Your task to perform on an android device: Go to Android settings Image 0: 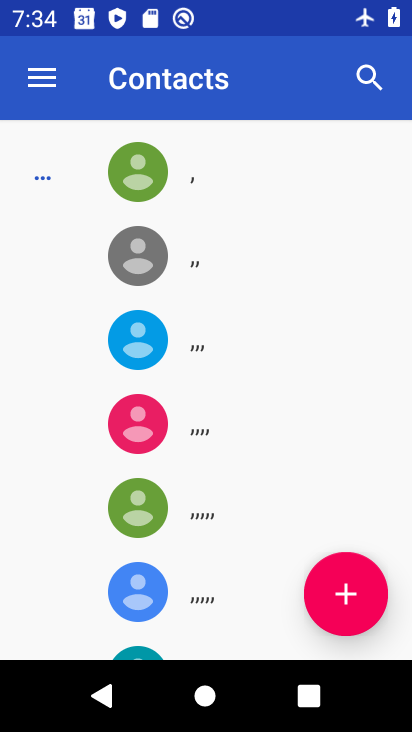
Step 0: press home button
Your task to perform on an android device: Go to Android settings Image 1: 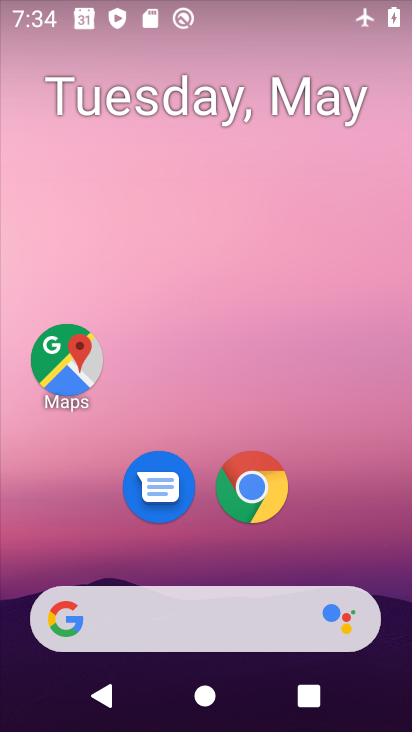
Step 1: drag from (378, 542) to (382, 233)
Your task to perform on an android device: Go to Android settings Image 2: 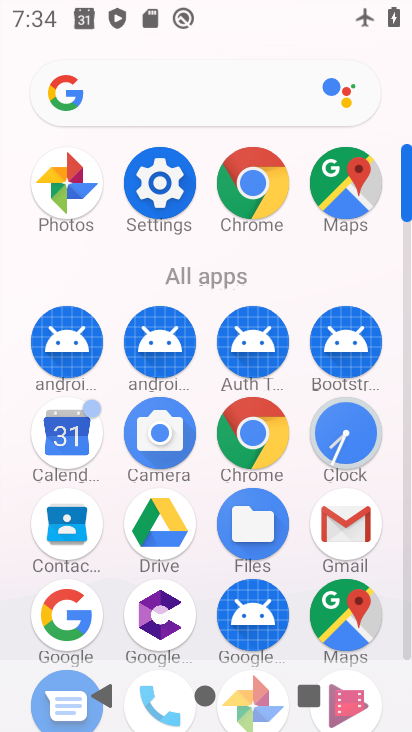
Step 2: click (179, 209)
Your task to perform on an android device: Go to Android settings Image 3: 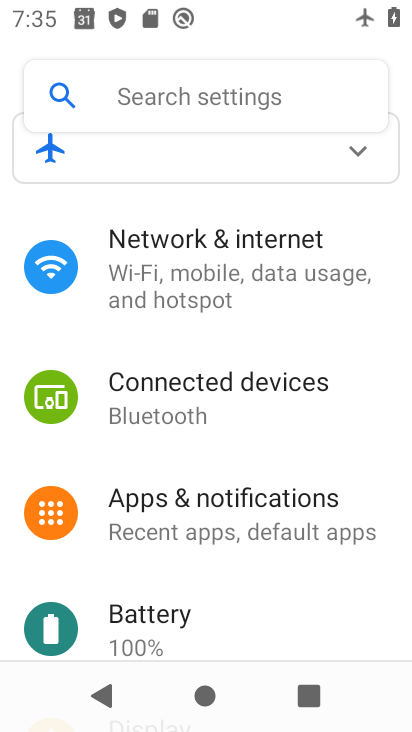
Step 3: drag from (342, 455) to (365, 319)
Your task to perform on an android device: Go to Android settings Image 4: 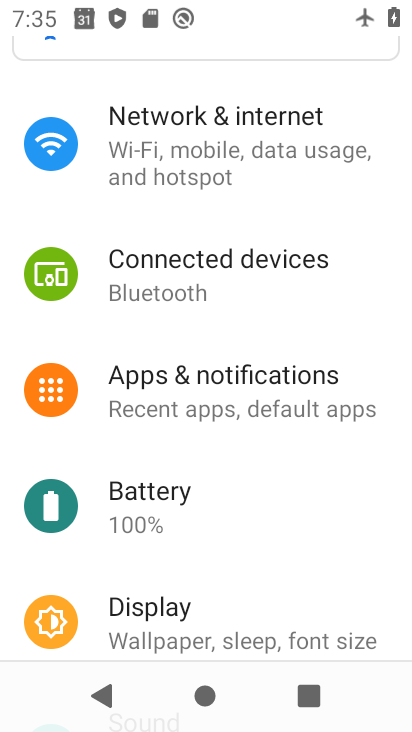
Step 4: drag from (359, 511) to (362, 374)
Your task to perform on an android device: Go to Android settings Image 5: 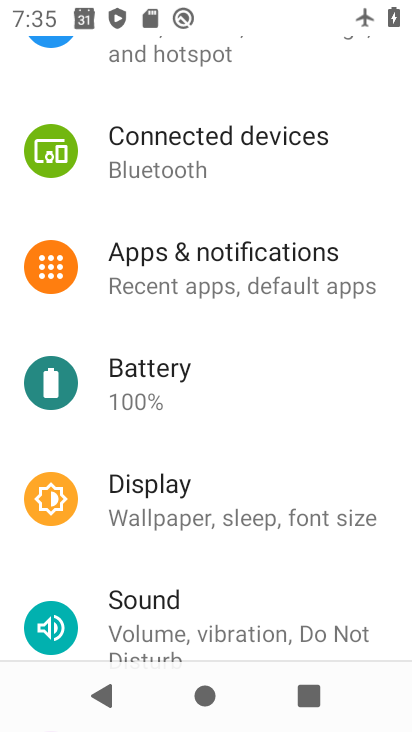
Step 5: drag from (368, 533) to (374, 453)
Your task to perform on an android device: Go to Android settings Image 6: 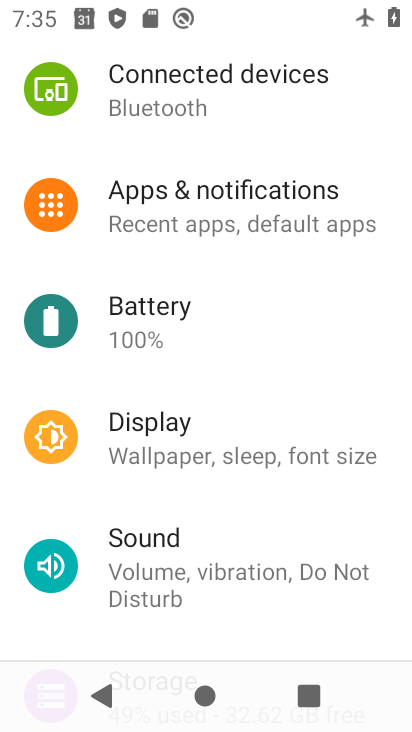
Step 6: drag from (365, 583) to (371, 469)
Your task to perform on an android device: Go to Android settings Image 7: 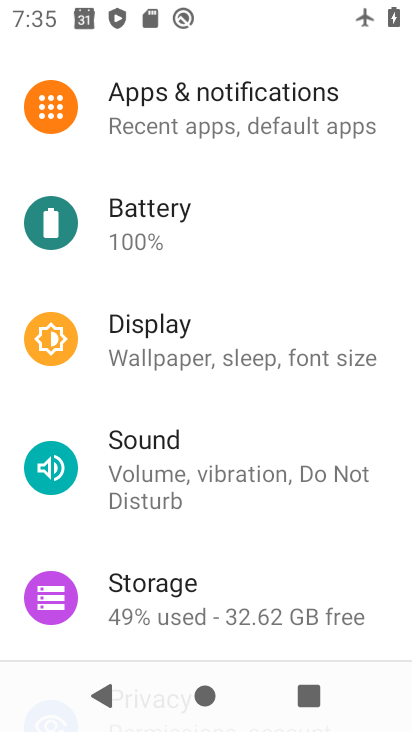
Step 7: drag from (366, 556) to (365, 420)
Your task to perform on an android device: Go to Android settings Image 8: 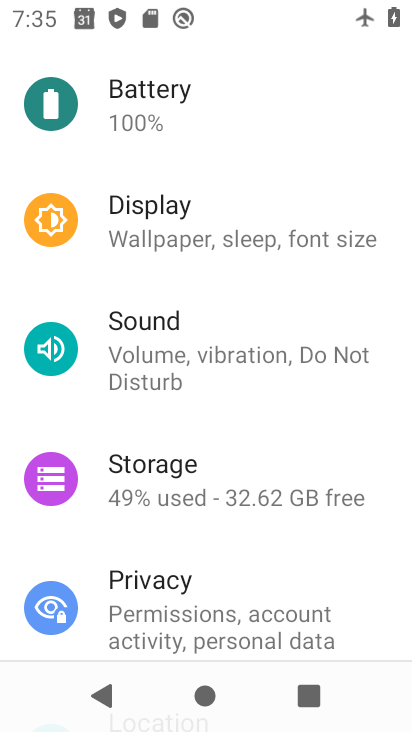
Step 8: drag from (363, 565) to (372, 455)
Your task to perform on an android device: Go to Android settings Image 9: 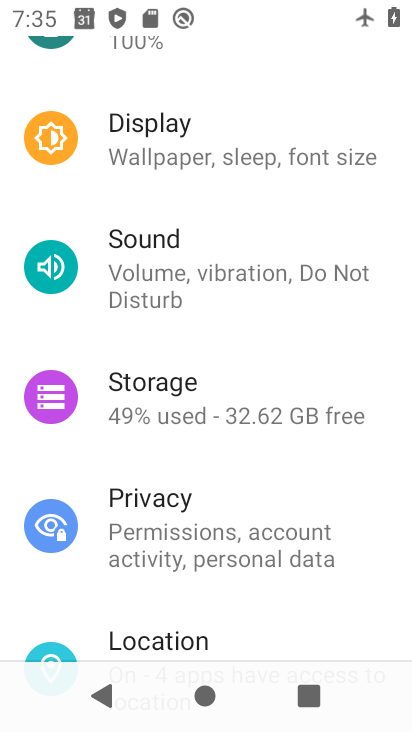
Step 9: drag from (371, 576) to (370, 427)
Your task to perform on an android device: Go to Android settings Image 10: 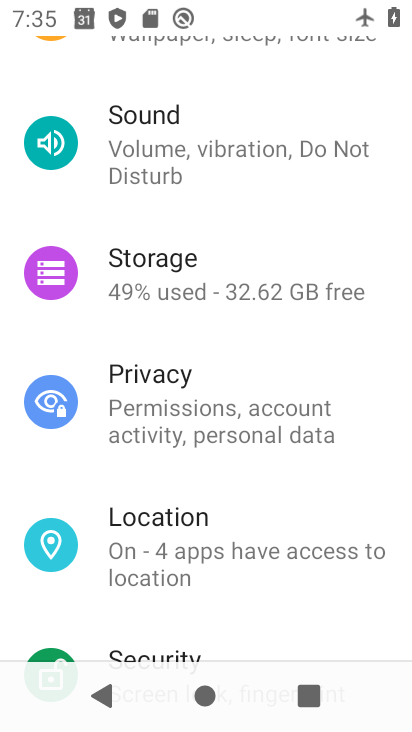
Step 10: drag from (352, 600) to (348, 465)
Your task to perform on an android device: Go to Android settings Image 11: 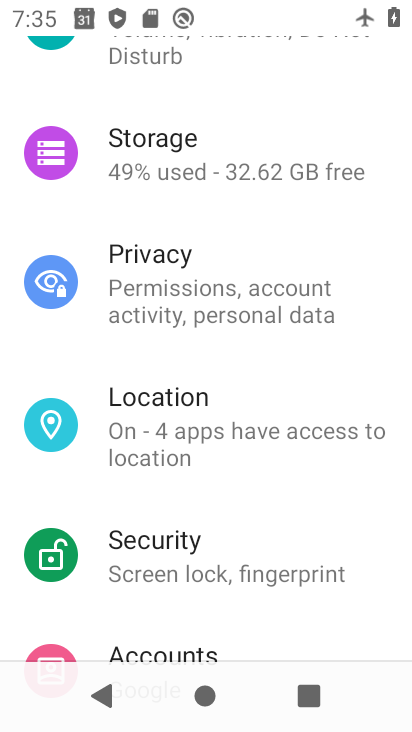
Step 11: drag from (371, 603) to (379, 436)
Your task to perform on an android device: Go to Android settings Image 12: 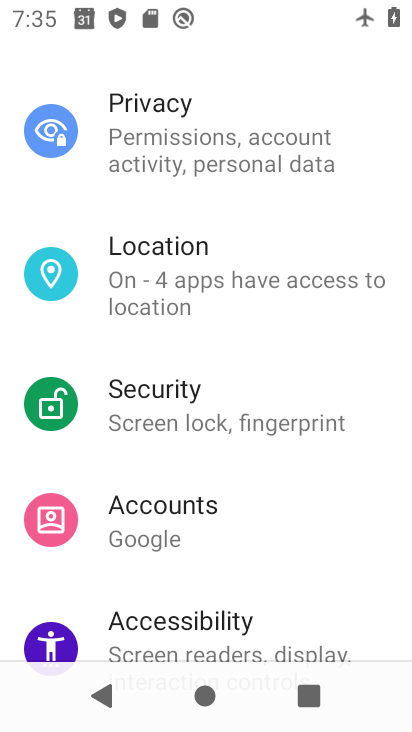
Step 12: drag from (366, 577) to (350, 446)
Your task to perform on an android device: Go to Android settings Image 13: 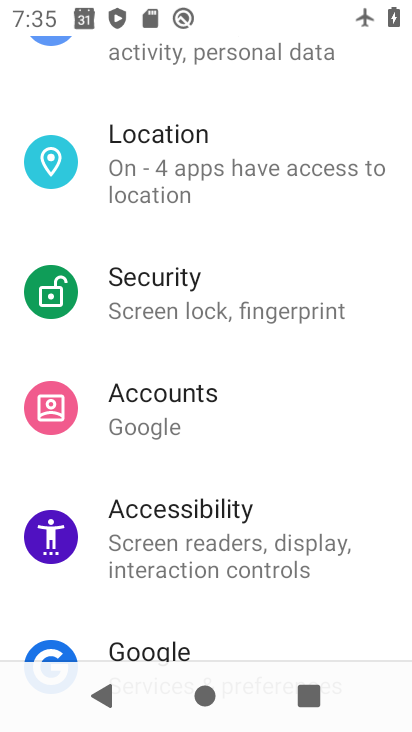
Step 13: drag from (374, 601) to (380, 504)
Your task to perform on an android device: Go to Android settings Image 14: 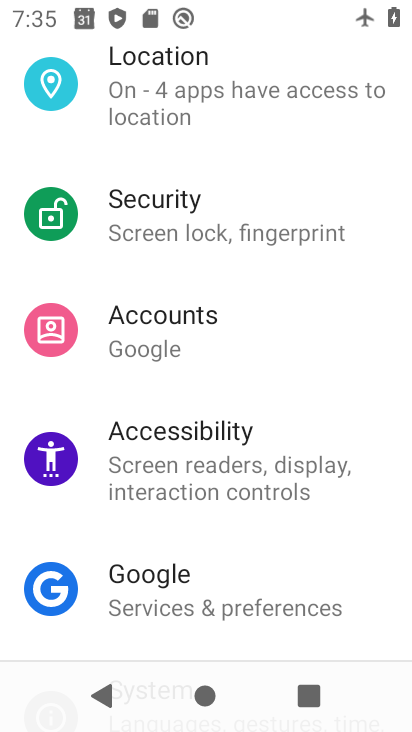
Step 14: drag from (377, 572) to (374, 452)
Your task to perform on an android device: Go to Android settings Image 15: 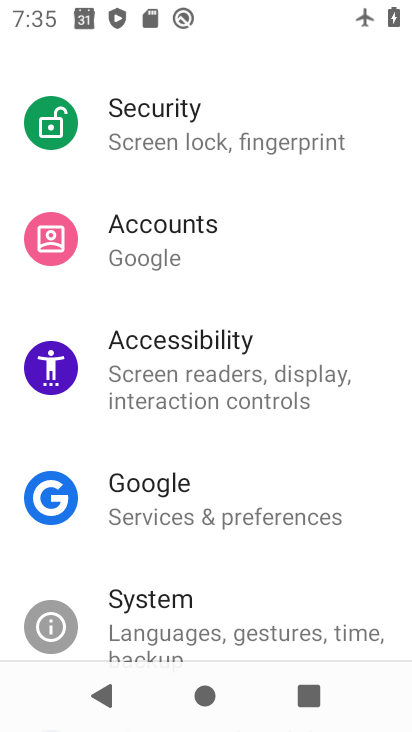
Step 15: drag from (368, 571) to (364, 395)
Your task to perform on an android device: Go to Android settings Image 16: 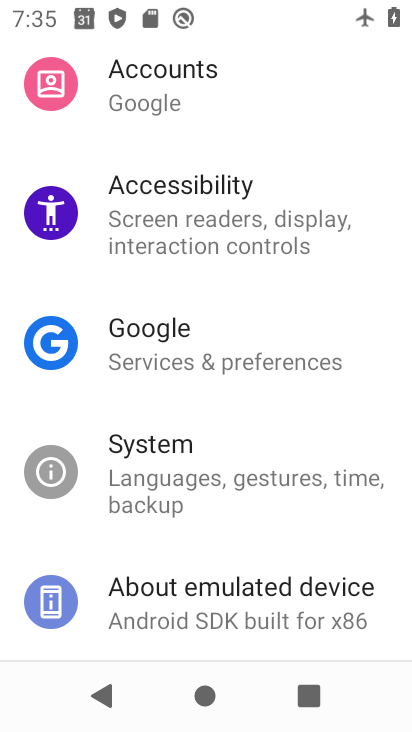
Step 16: click (298, 487)
Your task to perform on an android device: Go to Android settings Image 17: 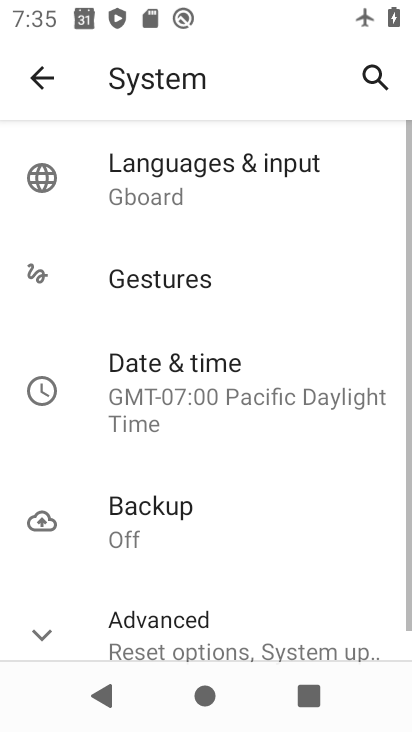
Step 17: drag from (300, 537) to (308, 418)
Your task to perform on an android device: Go to Android settings Image 18: 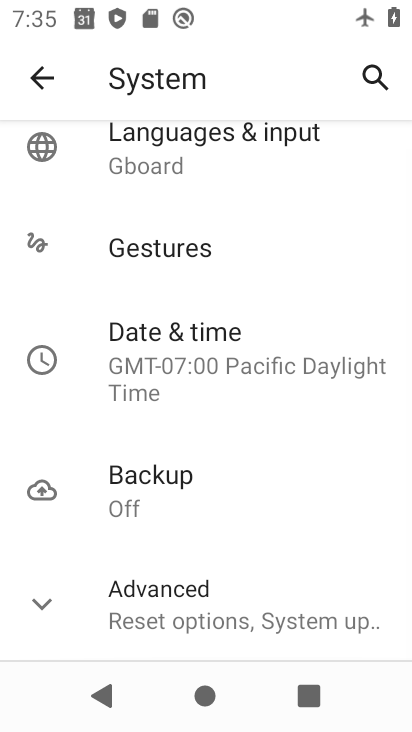
Step 18: click (296, 600)
Your task to perform on an android device: Go to Android settings Image 19: 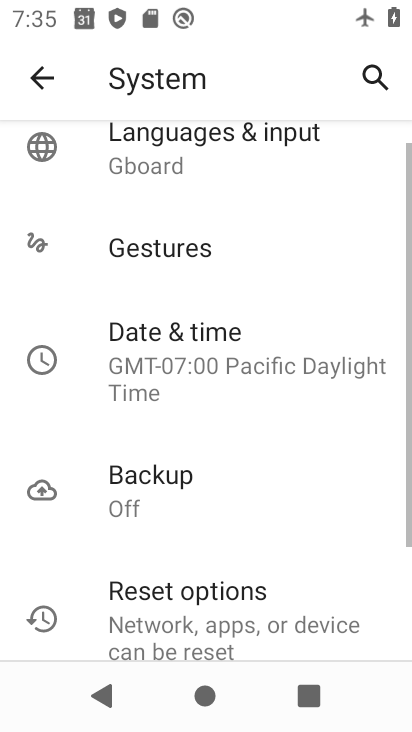
Step 19: drag from (333, 531) to (346, 384)
Your task to perform on an android device: Go to Android settings Image 20: 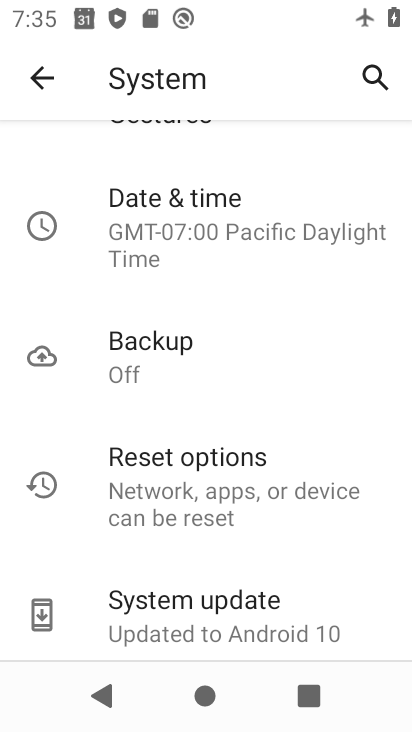
Step 20: drag from (345, 565) to (341, 471)
Your task to perform on an android device: Go to Android settings Image 21: 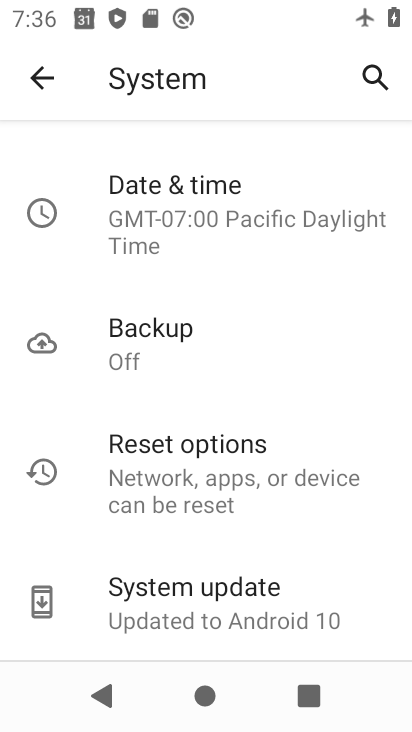
Step 21: click (312, 610)
Your task to perform on an android device: Go to Android settings Image 22: 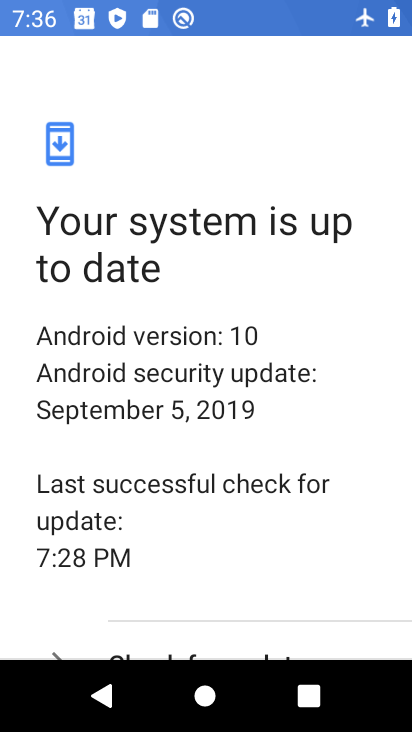
Step 22: task complete